Your task to perform on an android device: Search for seafood restaurants on Google Maps Image 0: 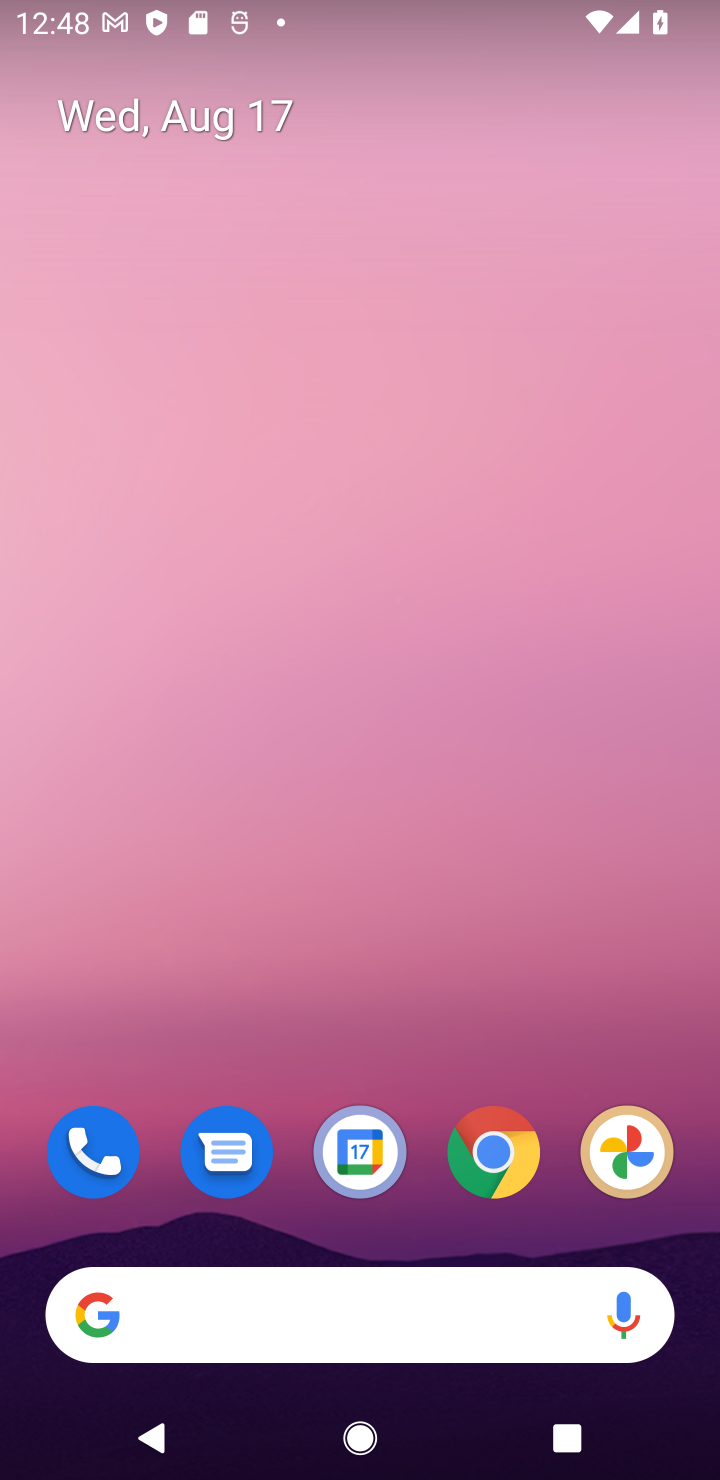
Step 0: drag from (556, 1228) to (696, 307)
Your task to perform on an android device: Search for seafood restaurants on Google Maps Image 1: 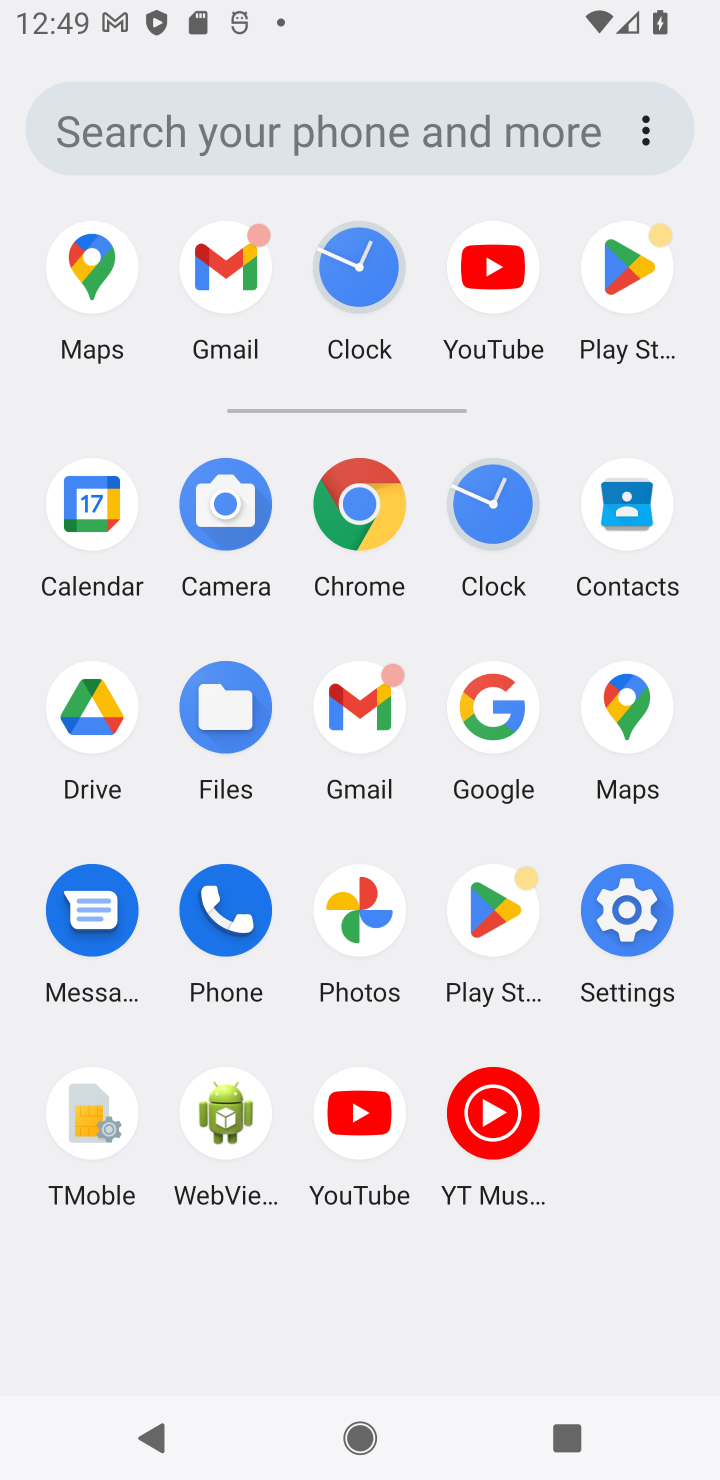
Step 1: click (613, 715)
Your task to perform on an android device: Search for seafood restaurants on Google Maps Image 2: 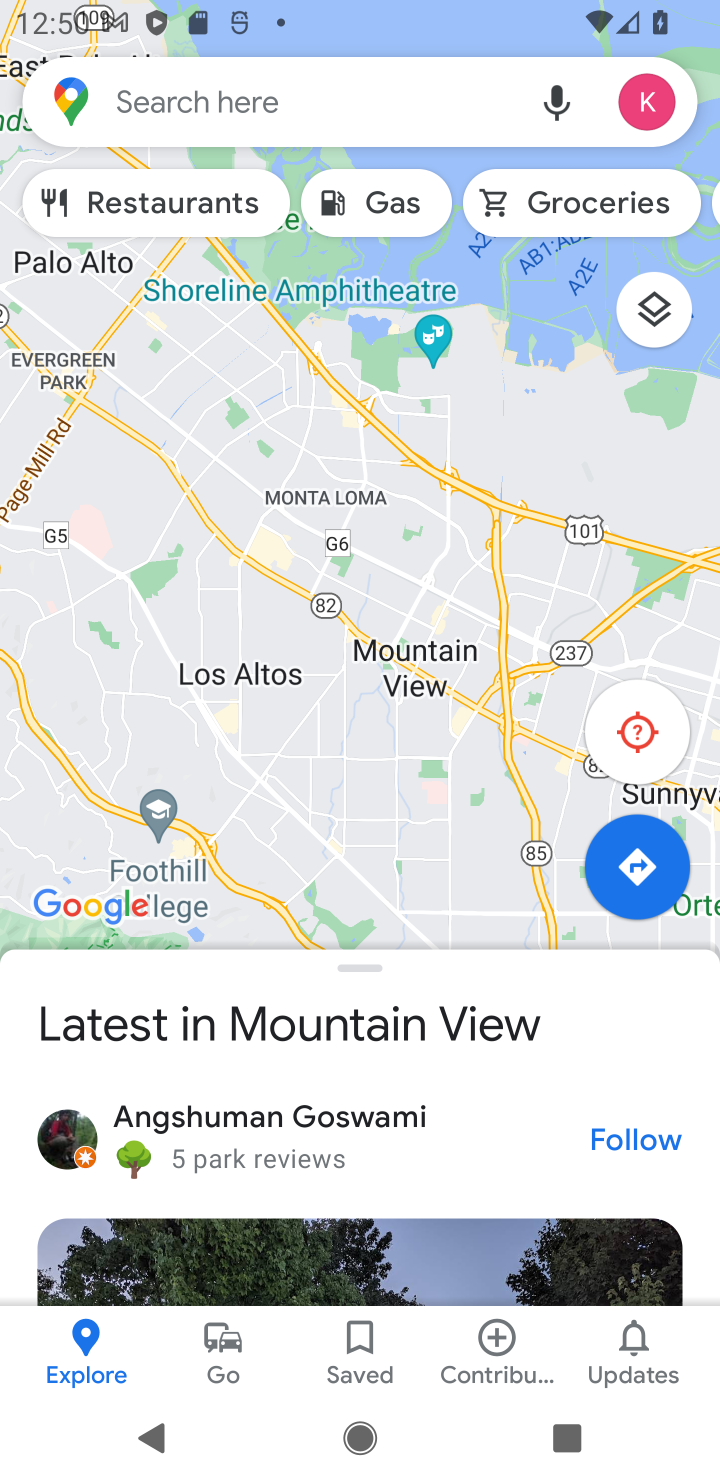
Step 2: click (200, 102)
Your task to perform on an android device: Search for seafood restaurants on Google Maps Image 3: 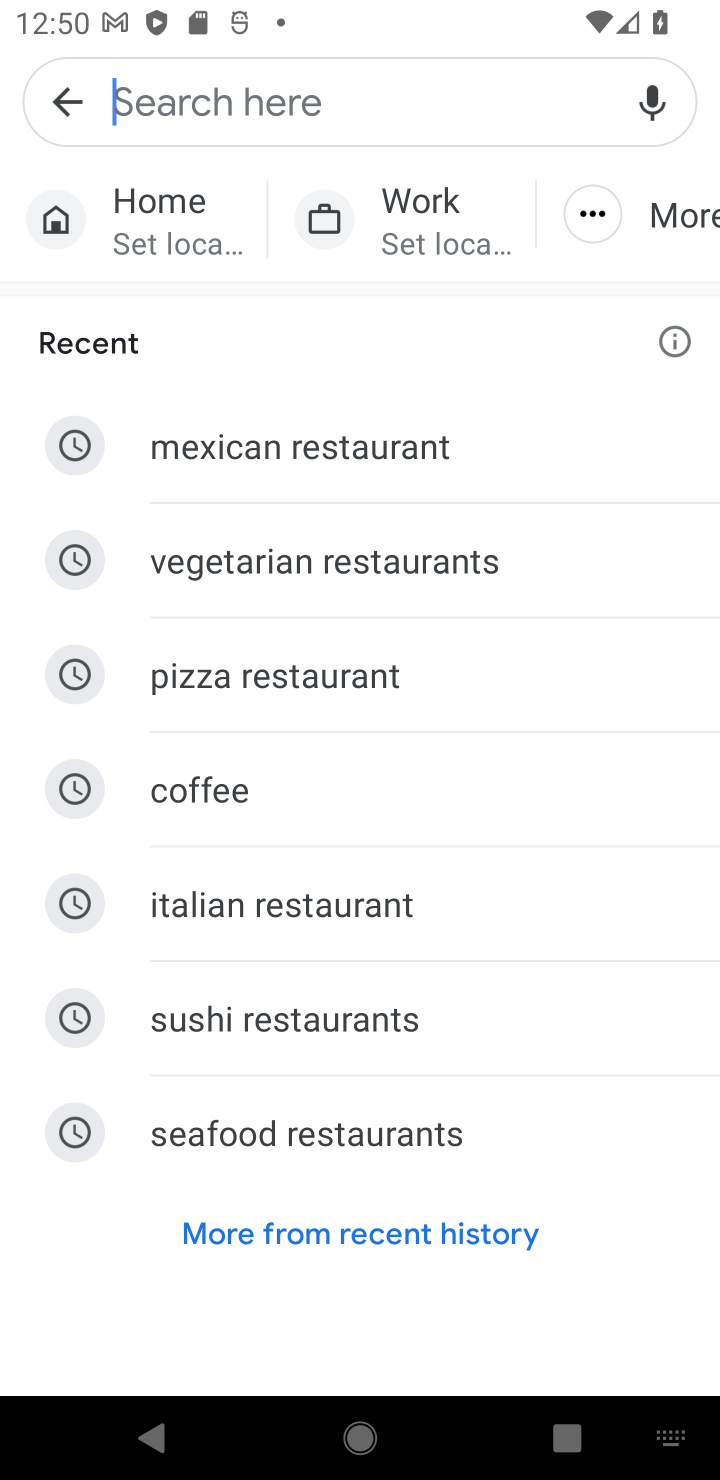
Step 3: click (261, 1125)
Your task to perform on an android device: Search for seafood restaurants on Google Maps Image 4: 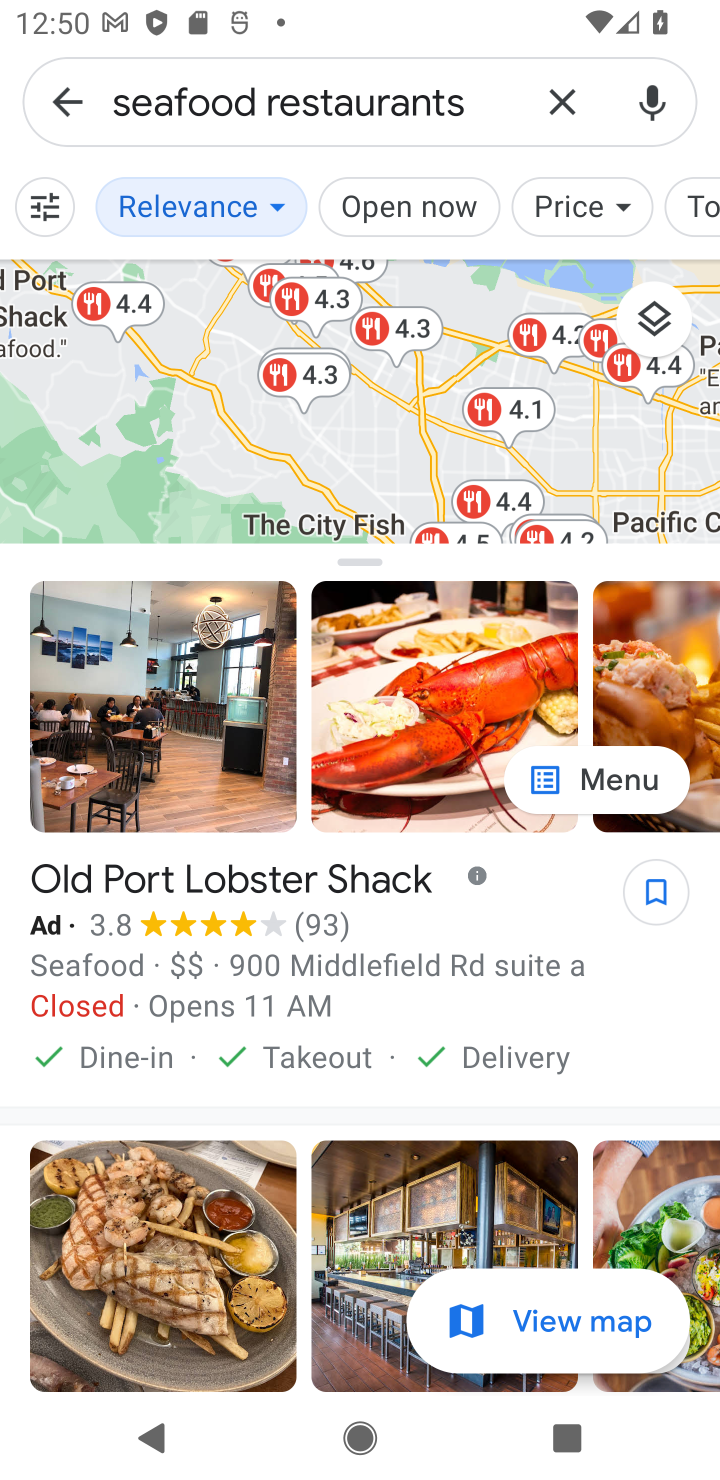
Step 4: task complete